Your task to perform on an android device: turn notification dots off Image 0: 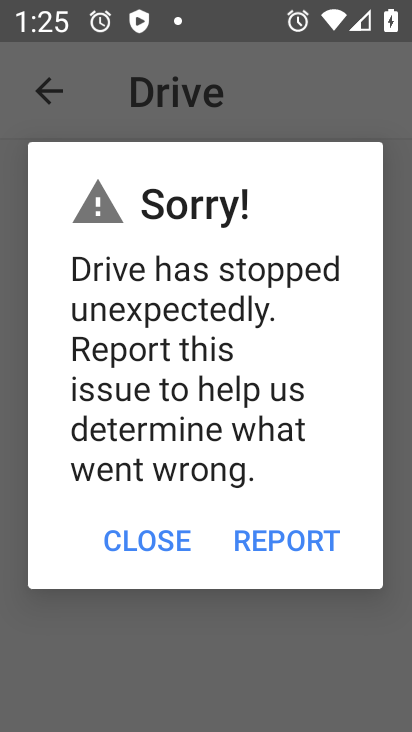
Step 0: press home button
Your task to perform on an android device: turn notification dots off Image 1: 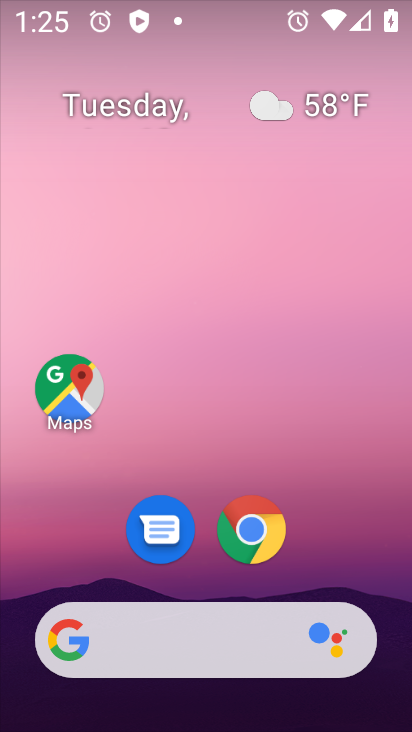
Step 1: drag from (281, 570) to (298, 372)
Your task to perform on an android device: turn notification dots off Image 2: 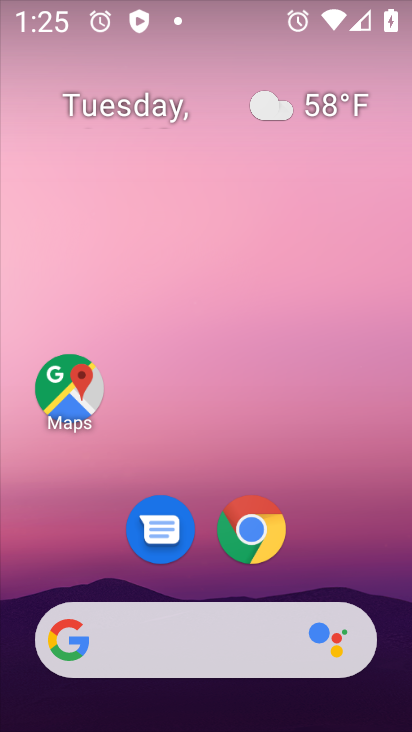
Step 2: drag from (286, 602) to (291, 160)
Your task to perform on an android device: turn notification dots off Image 3: 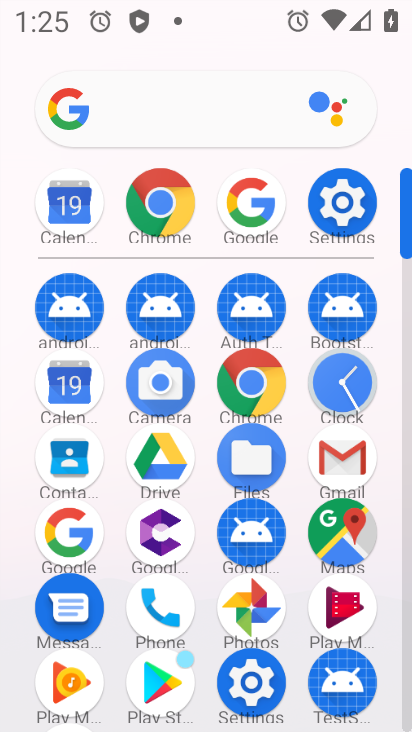
Step 3: click (338, 216)
Your task to perform on an android device: turn notification dots off Image 4: 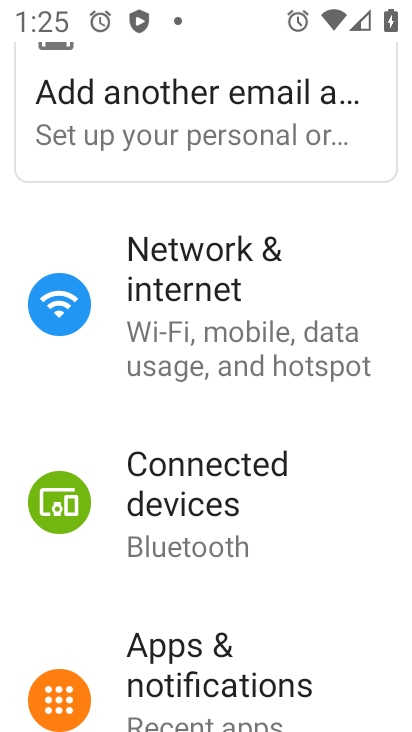
Step 4: drag from (218, 582) to (221, 292)
Your task to perform on an android device: turn notification dots off Image 5: 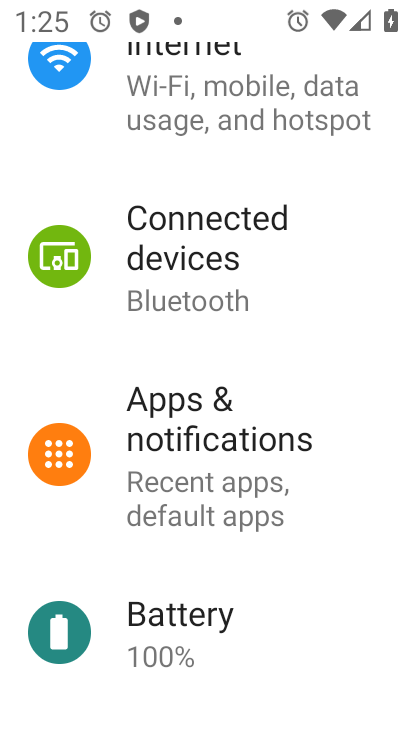
Step 5: click (250, 461)
Your task to perform on an android device: turn notification dots off Image 6: 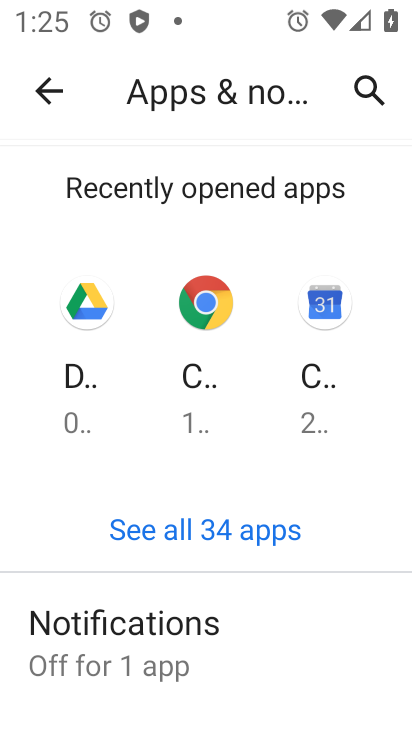
Step 6: drag from (241, 631) to (290, 176)
Your task to perform on an android device: turn notification dots off Image 7: 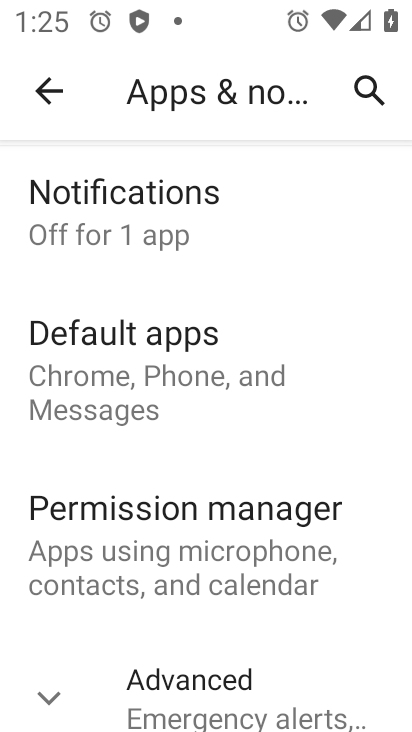
Step 7: drag from (227, 550) to (246, 231)
Your task to perform on an android device: turn notification dots off Image 8: 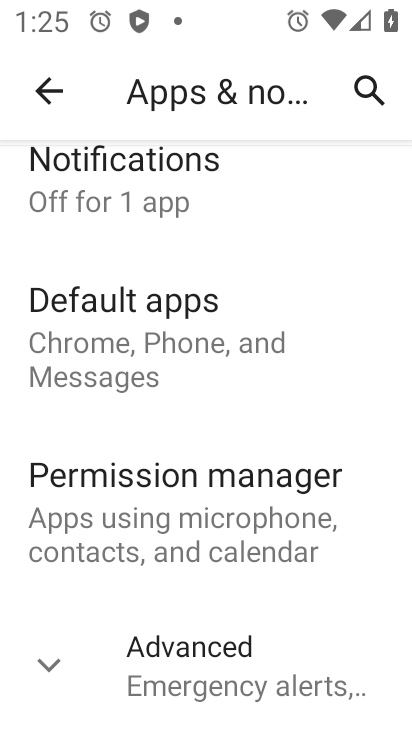
Step 8: click (231, 646)
Your task to perform on an android device: turn notification dots off Image 9: 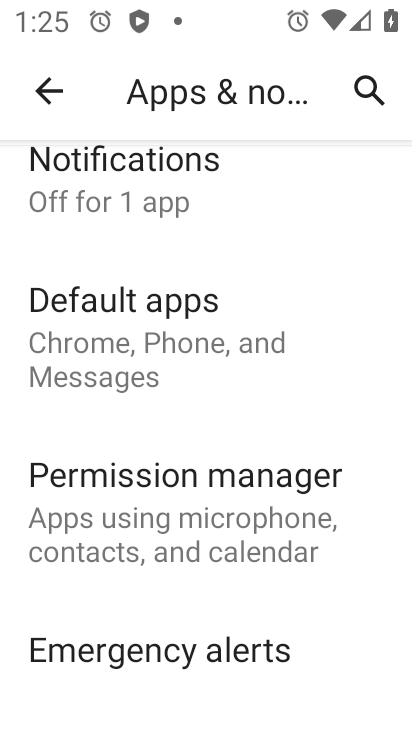
Step 9: drag from (260, 603) to (286, 217)
Your task to perform on an android device: turn notification dots off Image 10: 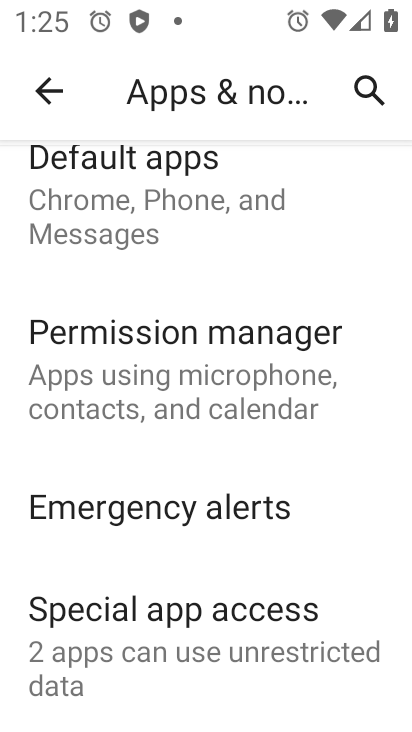
Step 10: drag from (246, 458) to (241, 606)
Your task to perform on an android device: turn notification dots off Image 11: 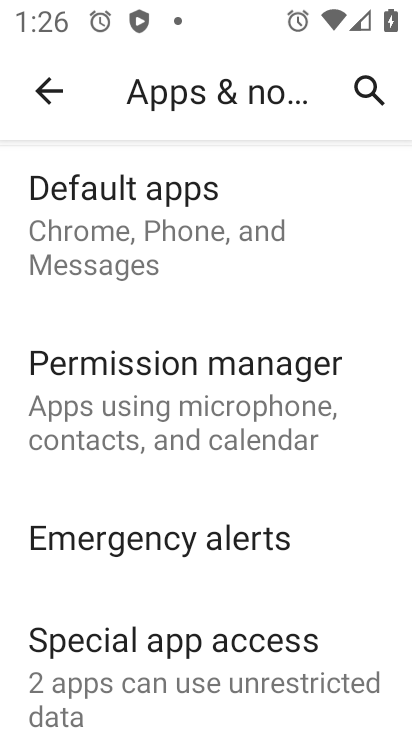
Step 11: drag from (284, 339) to (251, 606)
Your task to perform on an android device: turn notification dots off Image 12: 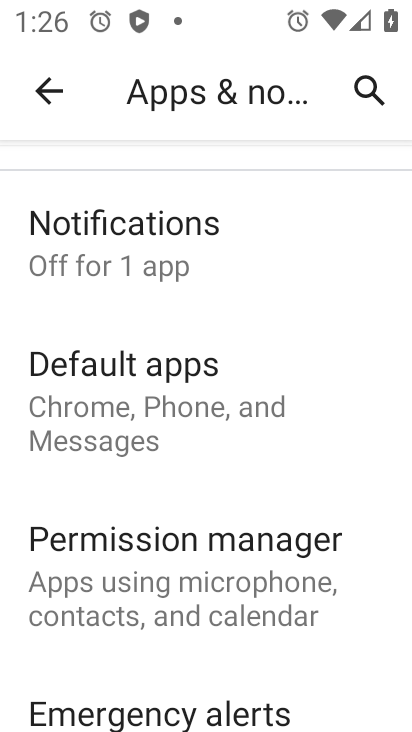
Step 12: drag from (203, 537) to (224, 234)
Your task to perform on an android device: turn notification dots off Image 13: 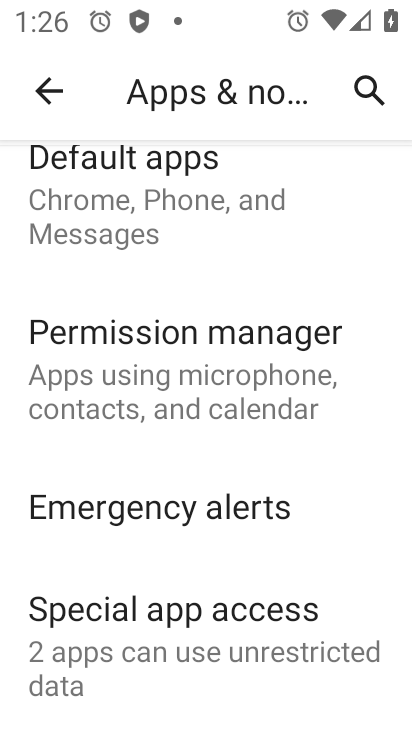
Step 13: drag from (170, 568) to (220, 298)
Your task to perform on an android device: turn notification dots off Image 14: 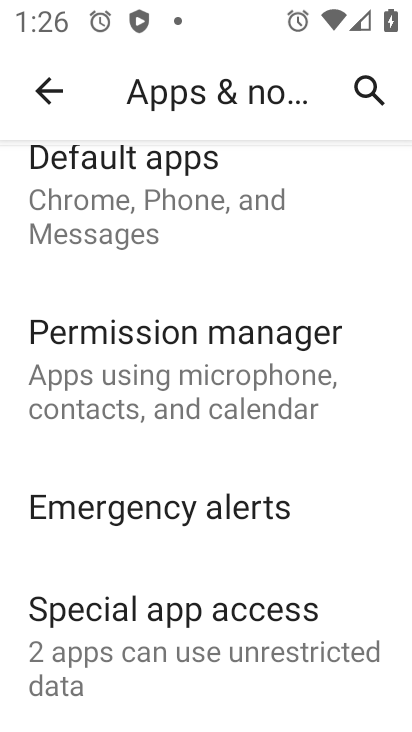
Step 14: click (186, 636)
Your task to perform on an android device: turn notification dots off Image 15: 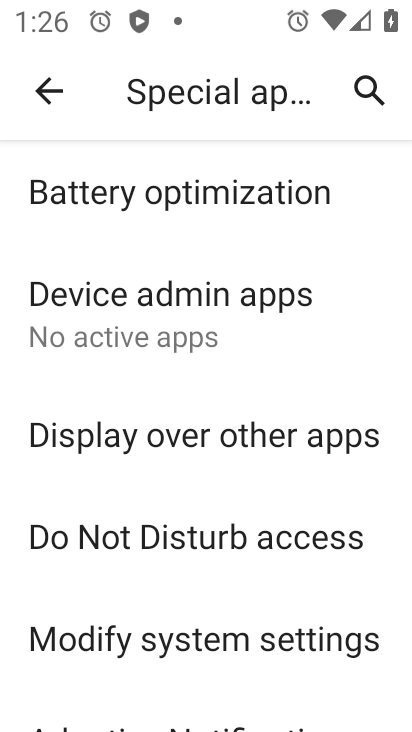
Step 15: drag from (164, 560) to (181, 350)
Your task to perform on an android device: turn notification dots off Image 16: 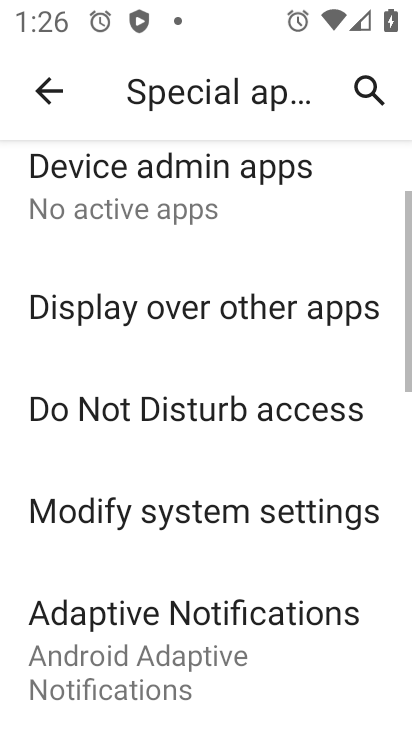
Step 16: click (184, 276)
Your task to perform on an android device: turn notification dots off Image 17: 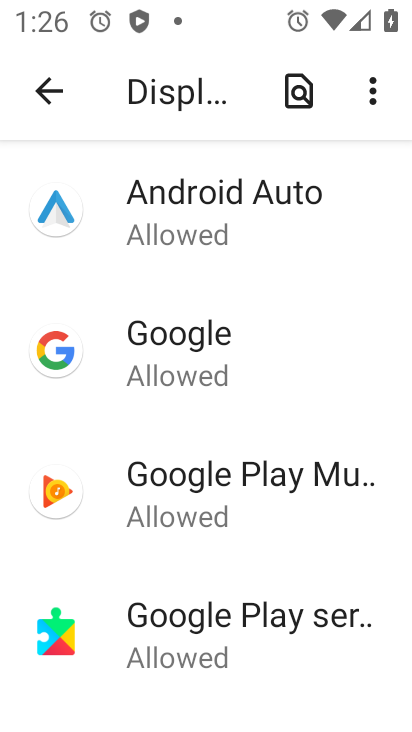
Step 17: task complete